Your task to perform on an android device: See recent photos Image 0: 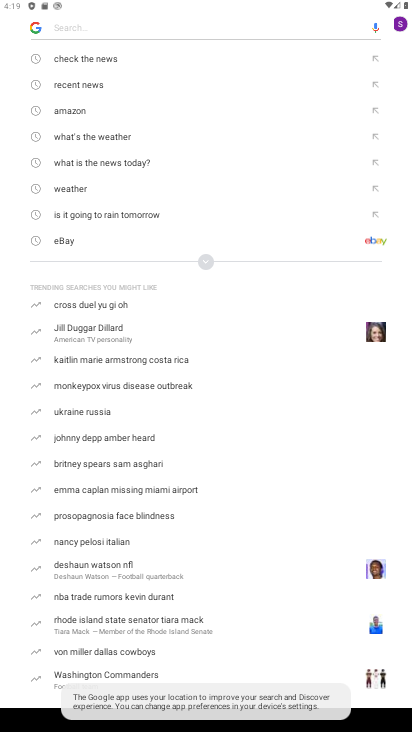
Step 0: press home button
Your task to perform on an android device: See recent photos Image 1: 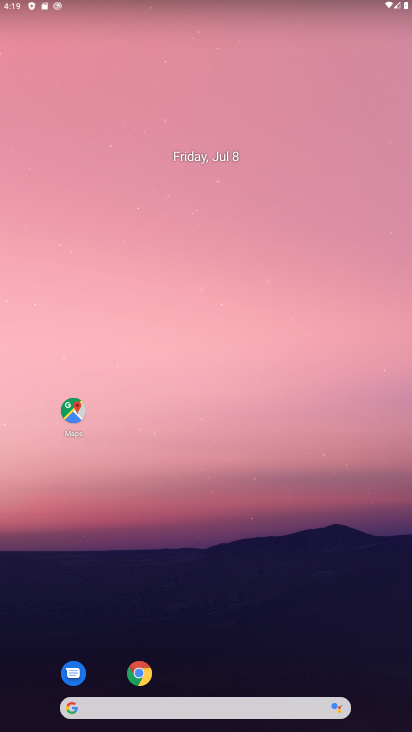
Step 1: drag from (193, 674) to (253, 268)
Your task to perform on an android device: See recent photos Image 2: 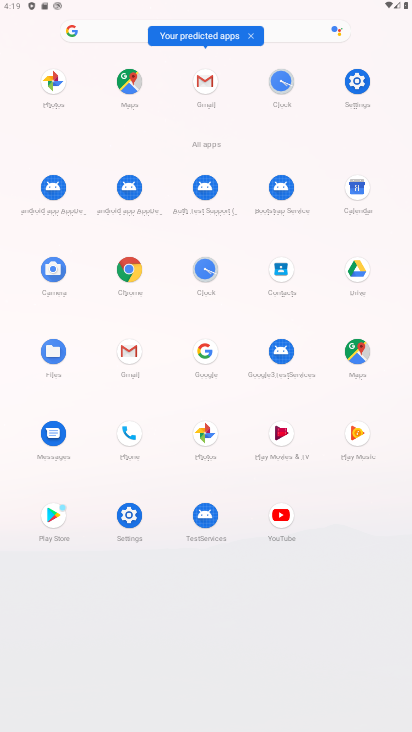
Step 2: click (194, 429)
Your task to perform on an android device: See recent photos Image 3: 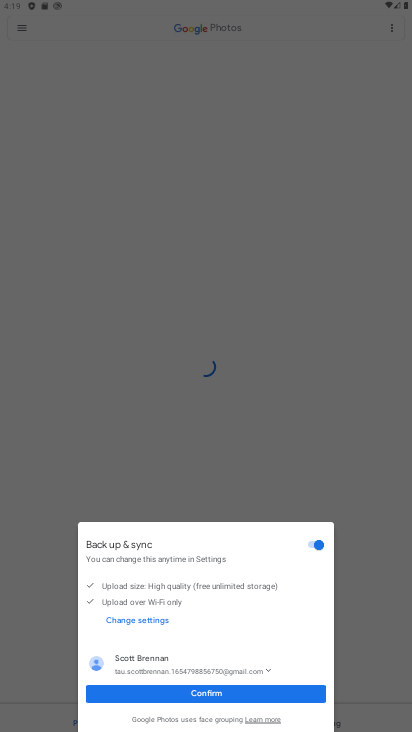
Step 3: click (245, 696)
Your task to perform on an android device: See recent photos Image 4: 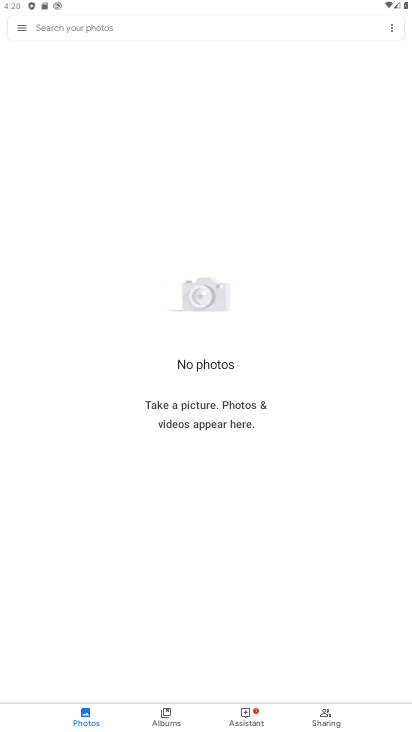
Step 4: task complete